Your task to perform on an android device: Search for the best rated headphones on amazon.com Image 0: 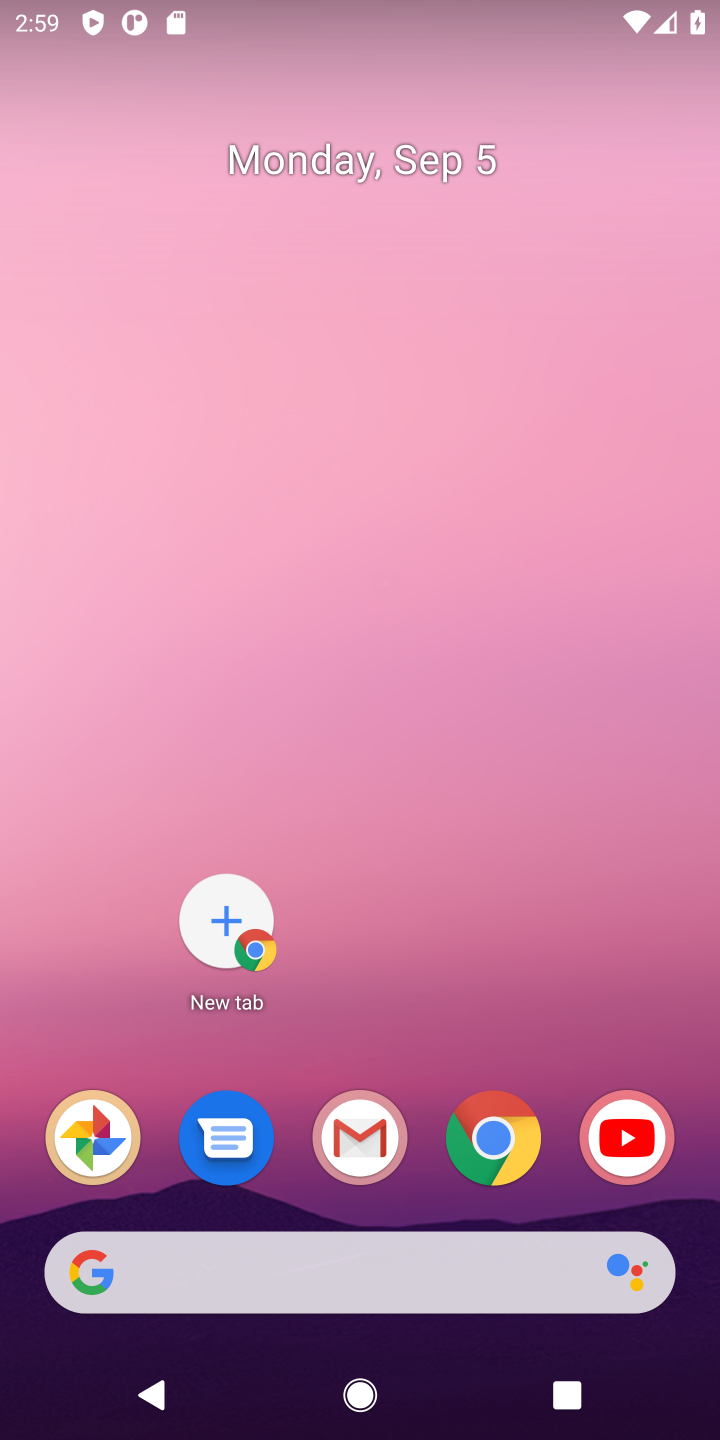
Step 0: click (493, 1170)
Your task to perform on an android device: Search for the best rated headphones on amazon.com Image 1: 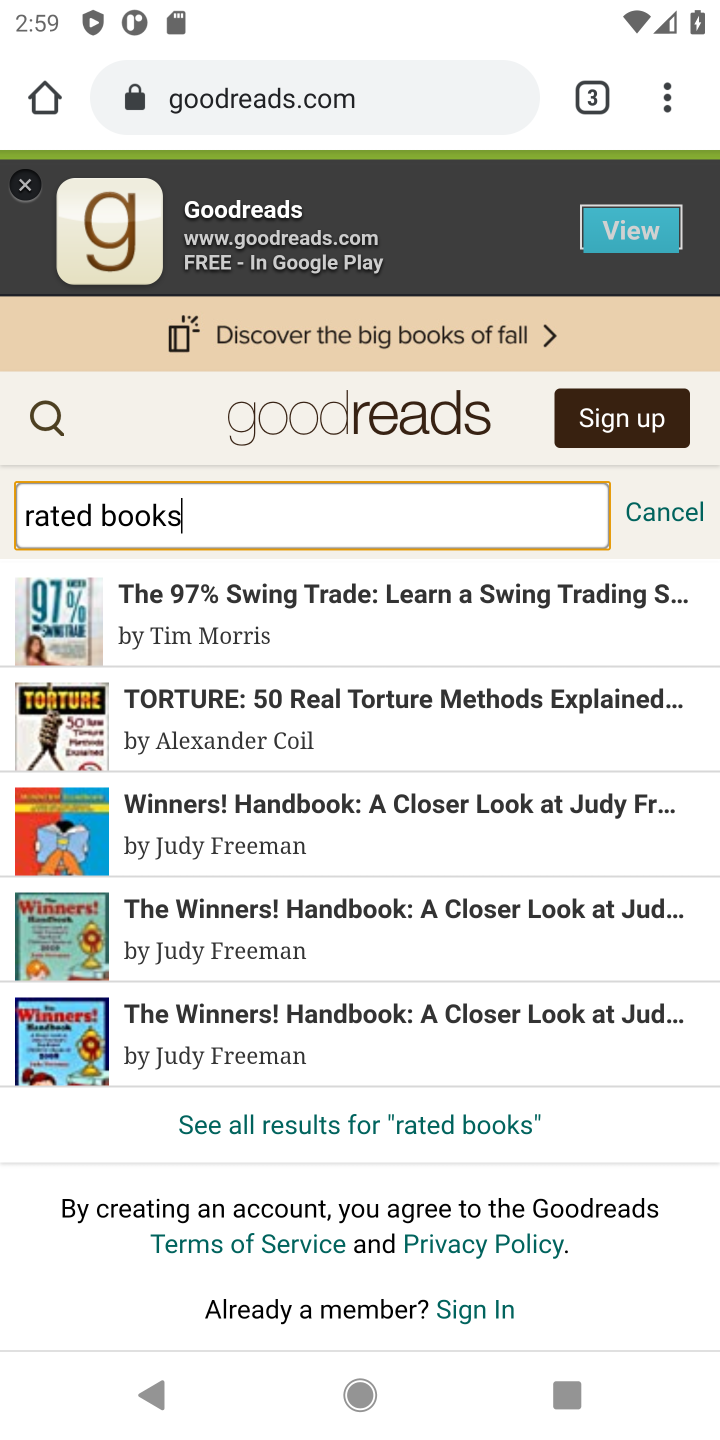
Step 1: click (279, 98)
Your task to perform on an android device: Search for the best rated headphones on amazon.com Image 2: 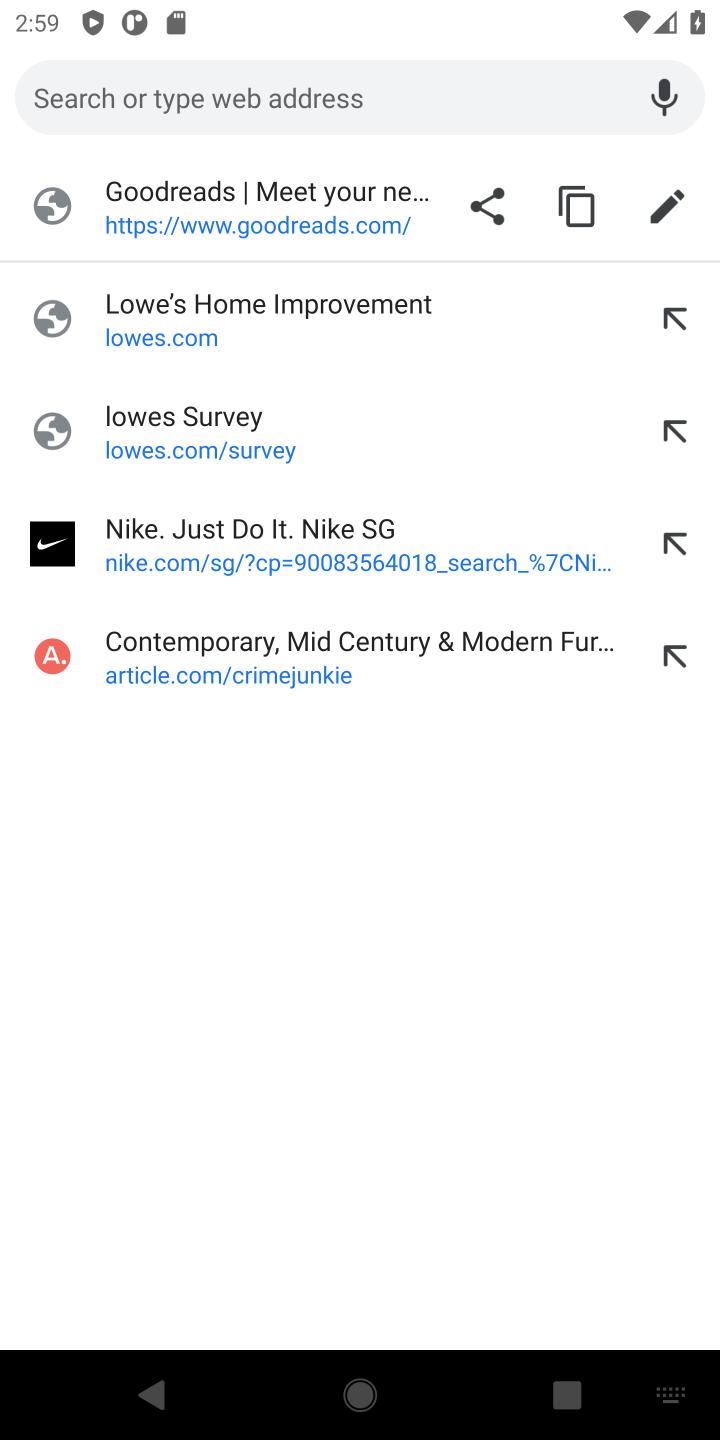
Step 2: type "amazon.com"
Your task to perform on an android device: Search for the best rated headphones on amazon.com Image 3: 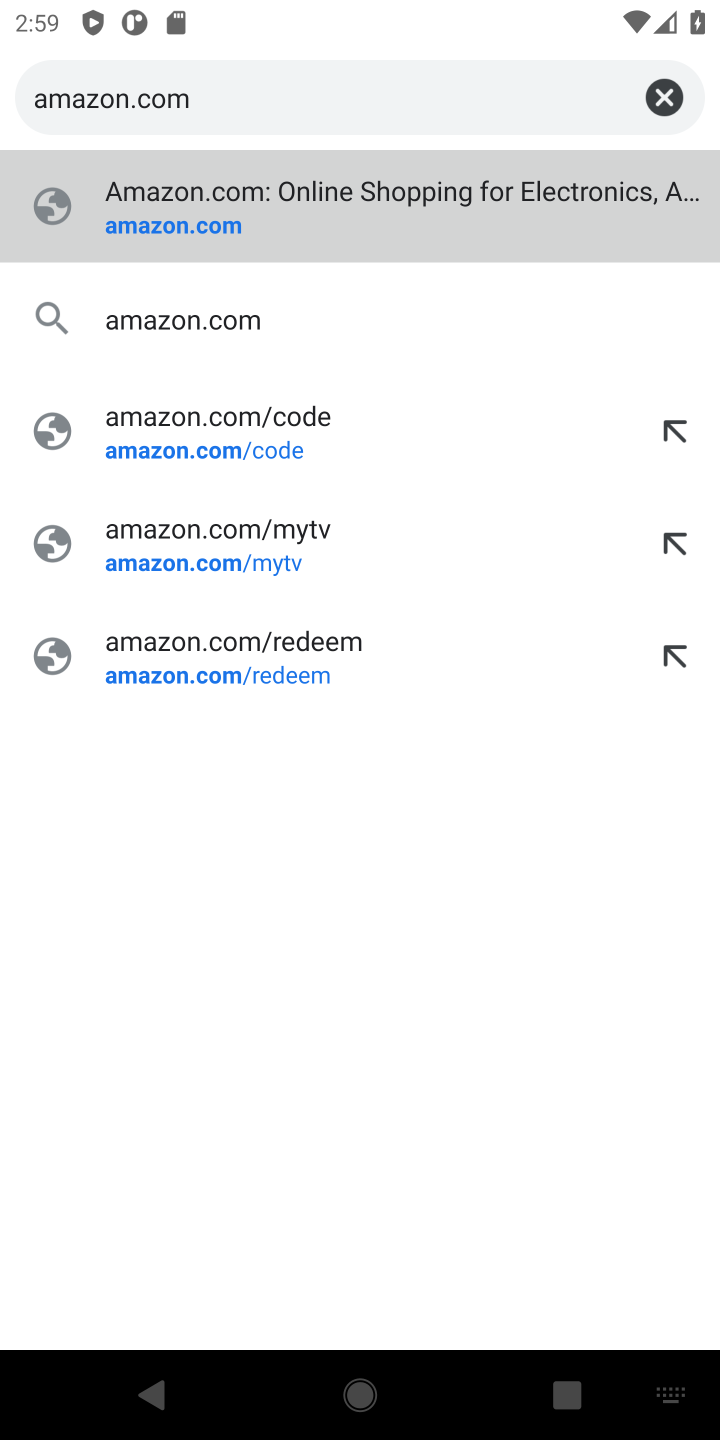
Step 3: type ""
Your task to perform on an android device: Search for the best rated headphones on amazon.com Image 4: 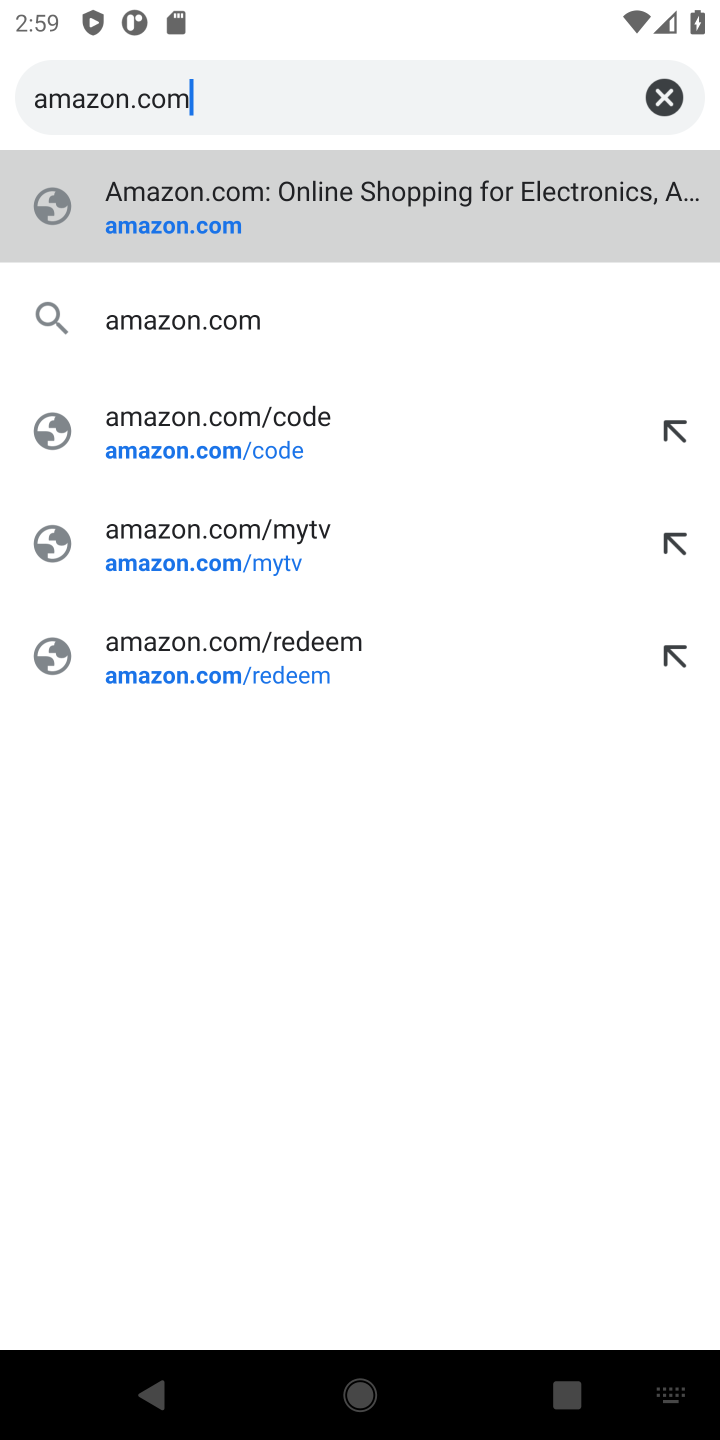
Step 4: click (270, 246)
Your task to perform on an android device: Search for the best rated headphones on amazon.com Image 5: 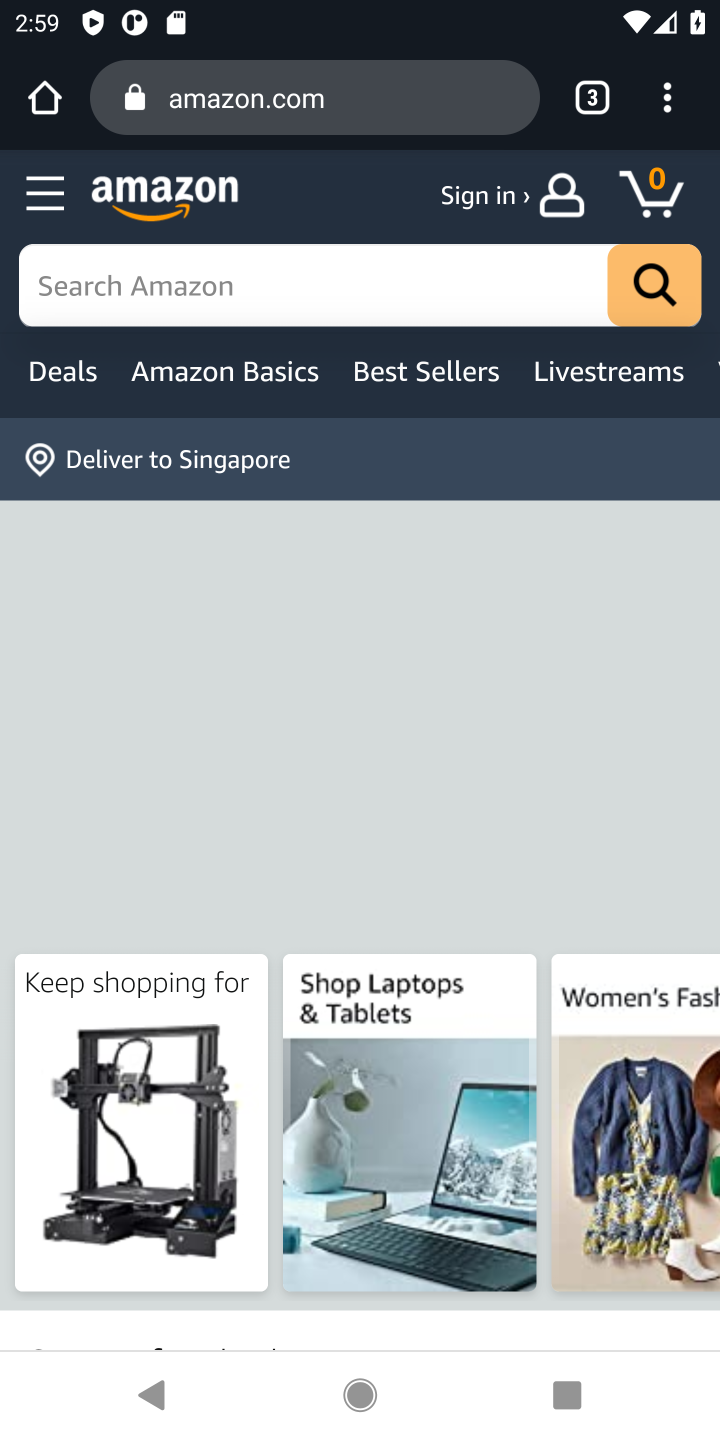
Step 5: click (283, 286)
Your task to perform on an android device: Search for the best rated headphones on amazon.com Image 6: 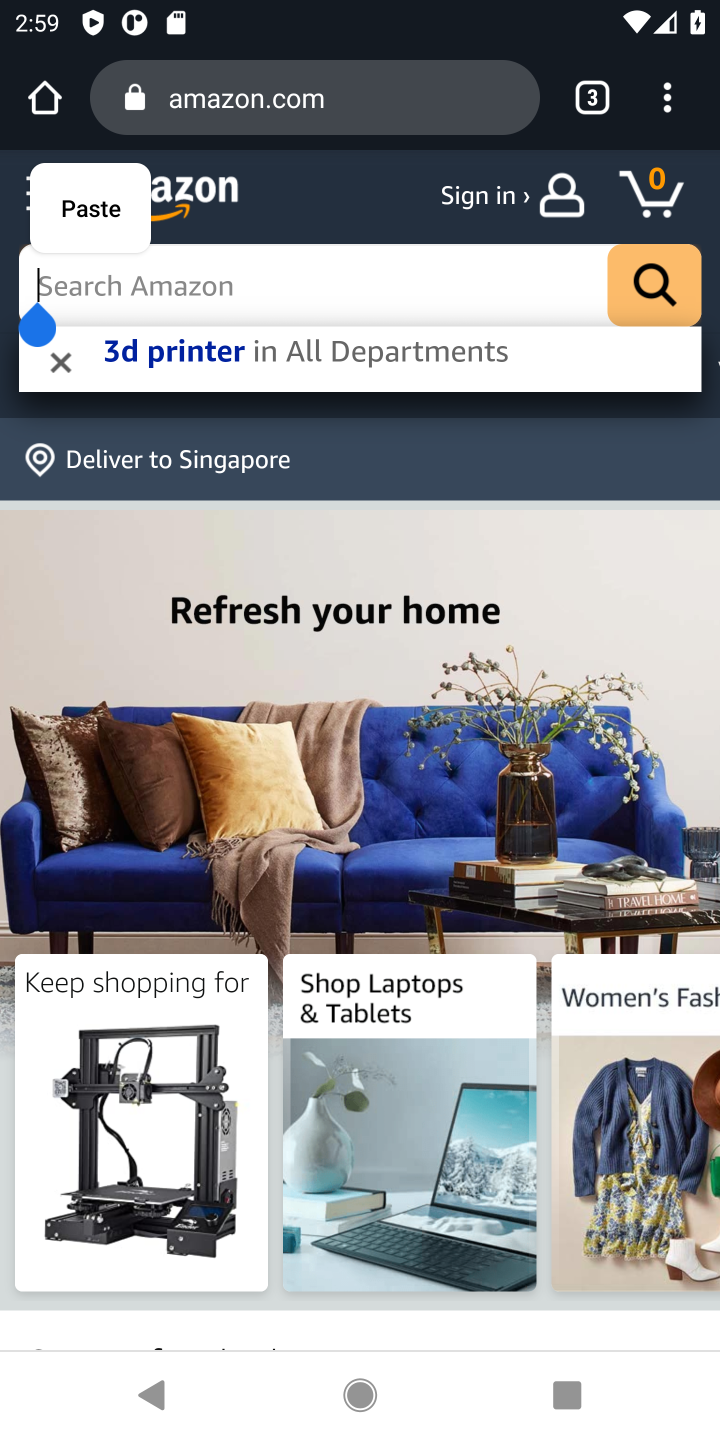
Step 6: type "headphones"
Your task to perform on an android device: Search for the best rated headphones on amazon.com Image 7: 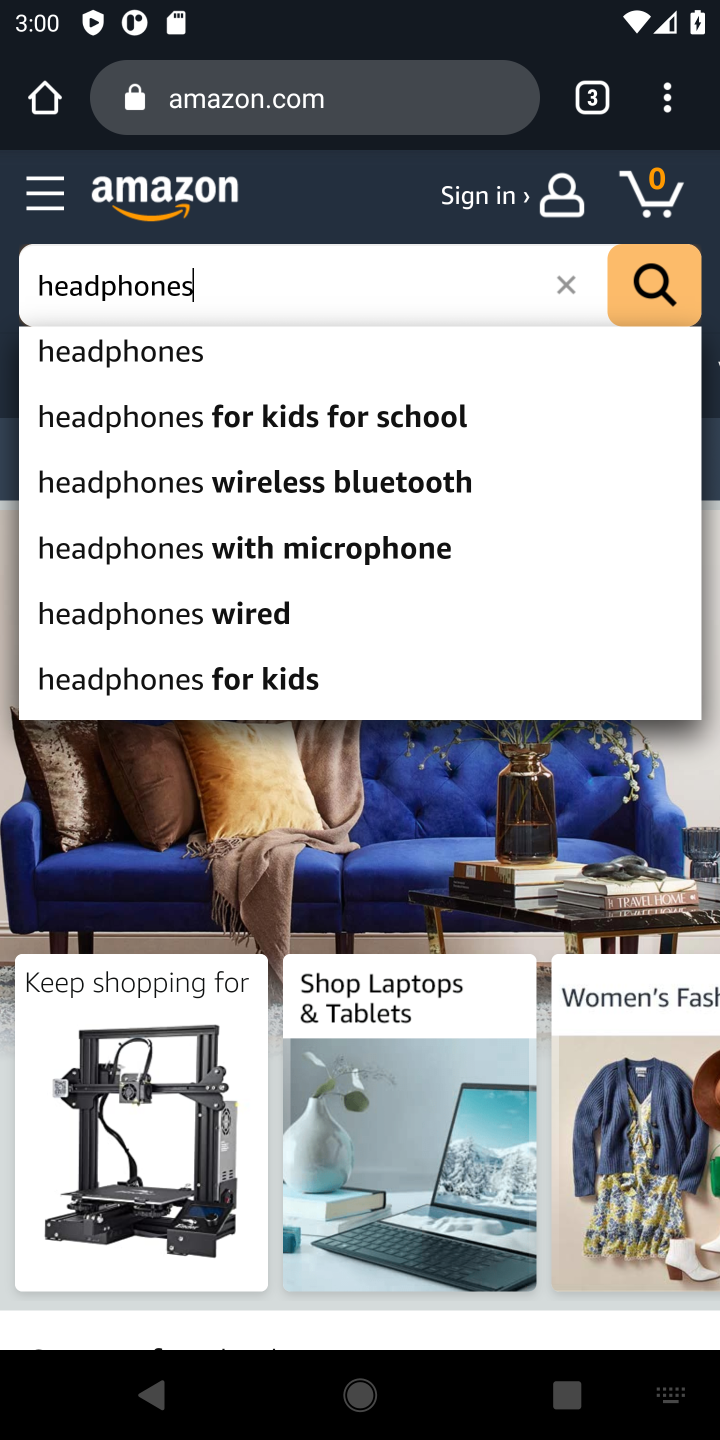
Step 7: click (78, 356)
Your task to perform on an android device: Search for the best rated headphones on amazon.com Image 8: 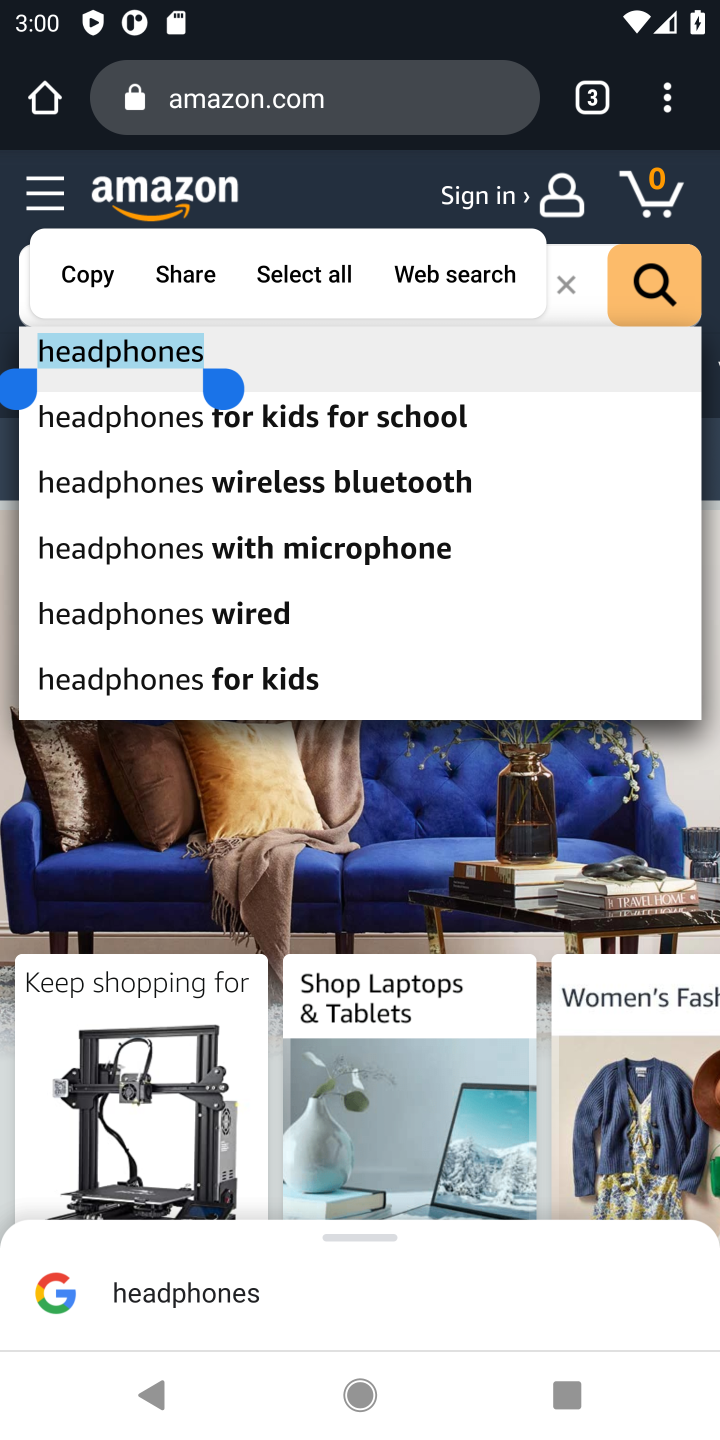
Step 8: click (82, 357)
Your task to perform on an android device: Search for the best rated headphones on amazon.com Image 9: 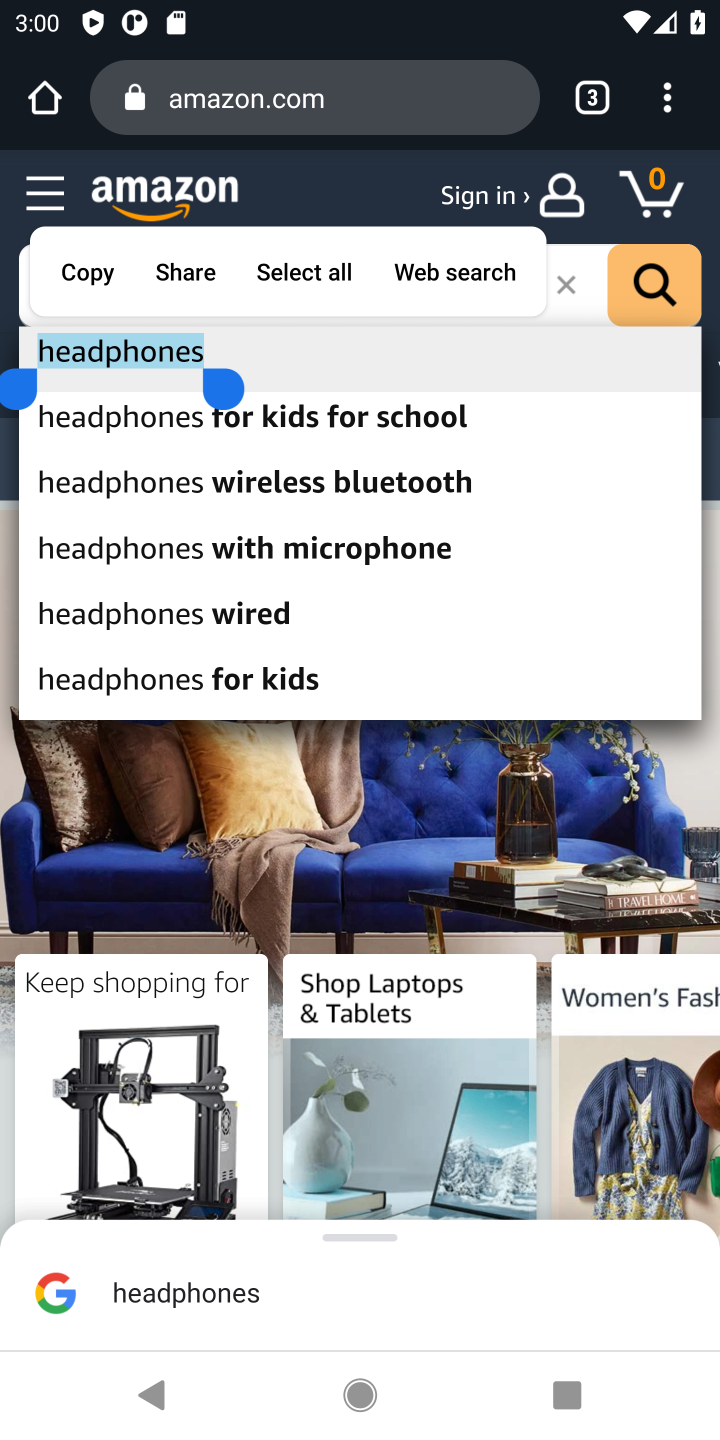
Step 9: click (150, 342)
Your task to perform on an android device: Search for the best rated headphones on amazon.com Image 10: 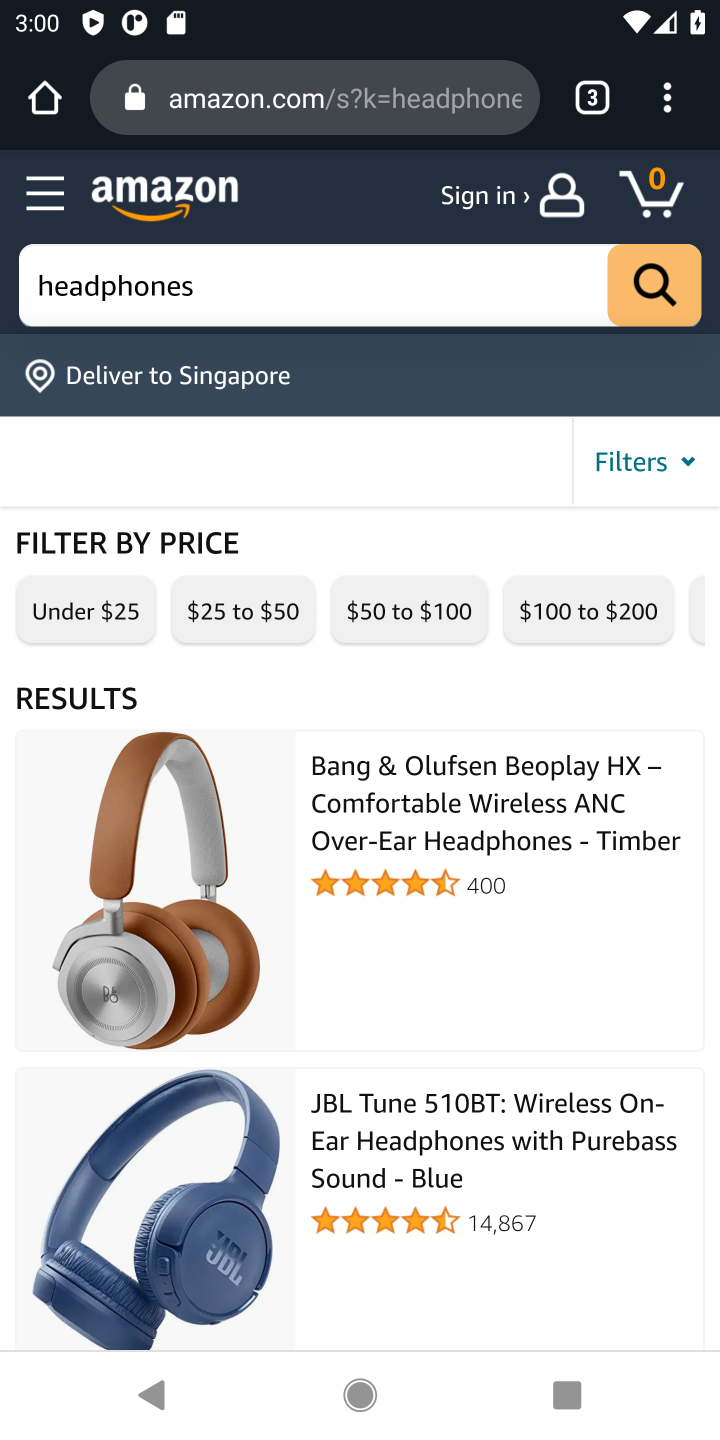
Step 10: click (621, 464)
Your task to perform on an android device: Search for the best rated headphones on amazon.com Image 11: 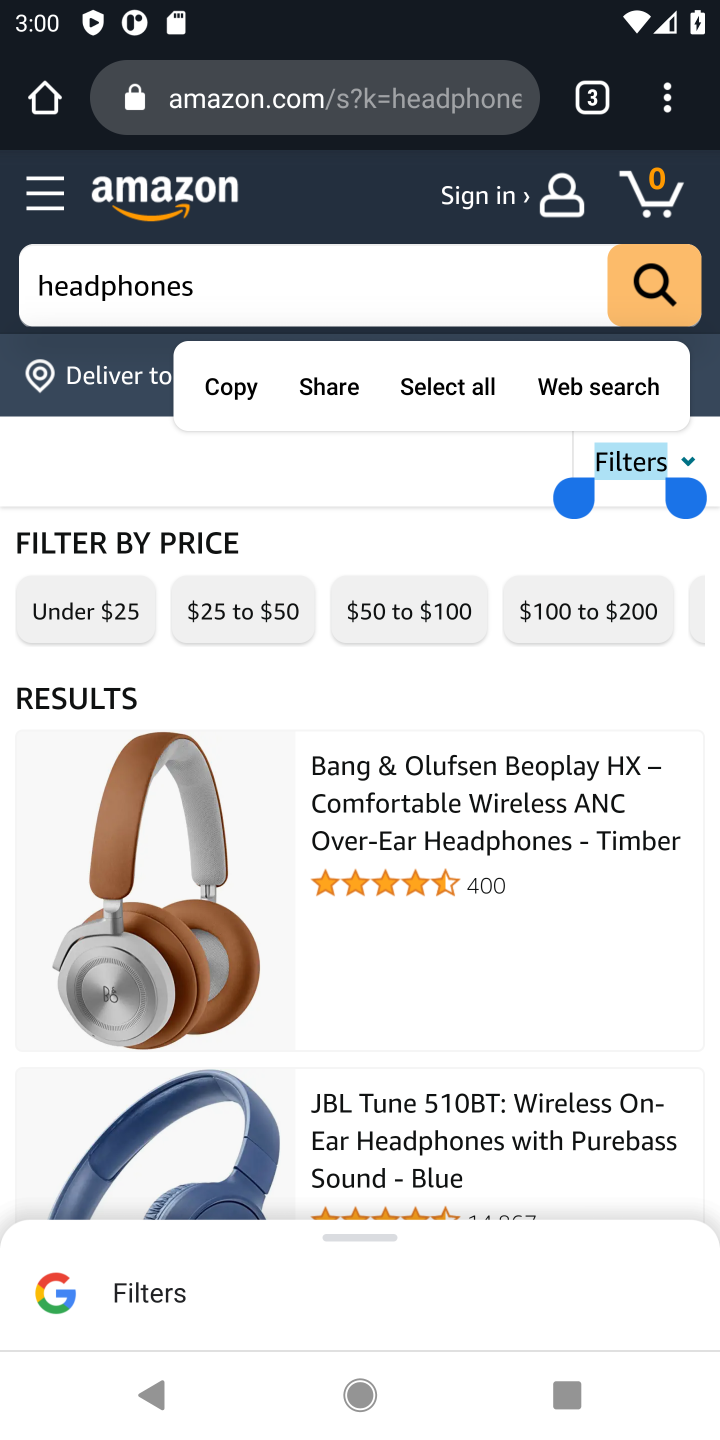
Step 11: click (594, 622)
Your task to perform on an android device: Search for the best rated headphones on amazon.com Image 12: 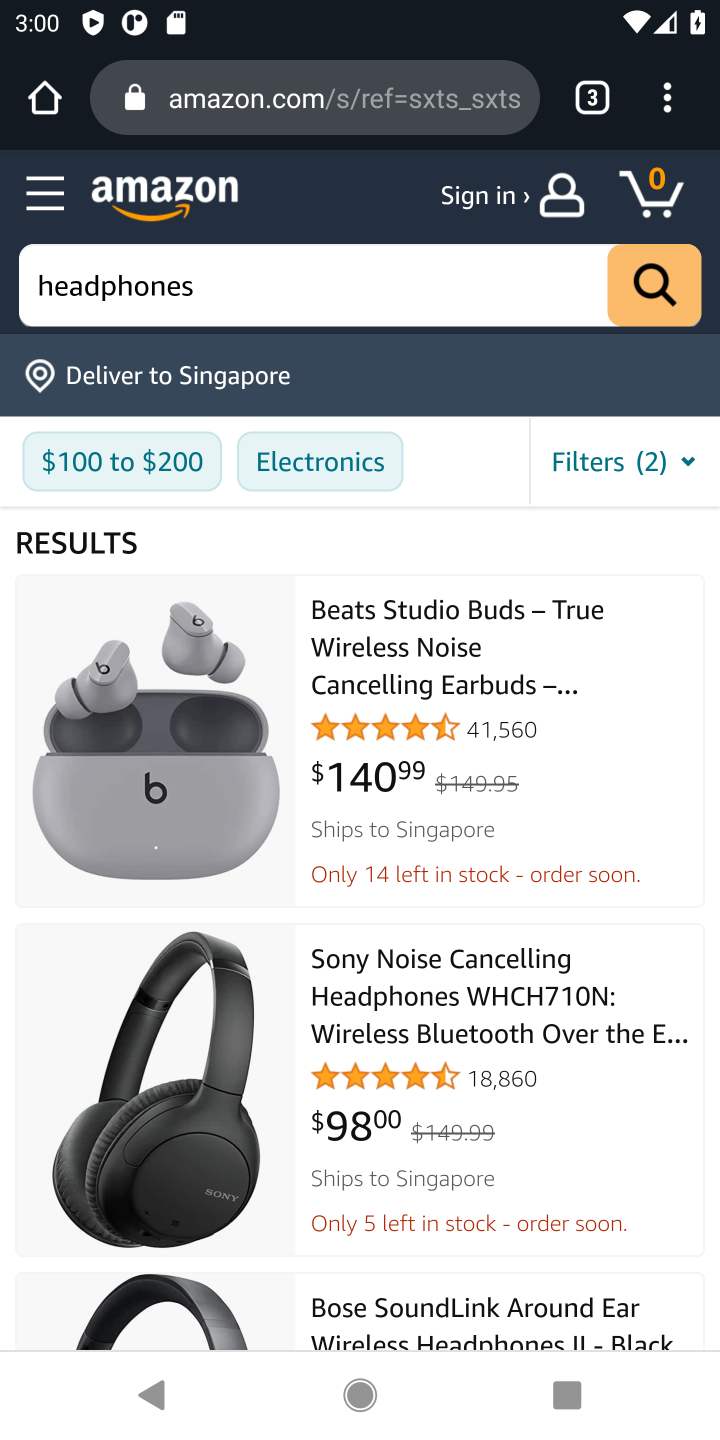
Step 12: drag from (571, 1006) to (499, 250)
Your task to perform on an android device: Search for the best rated headphones on amazon.com Image 13: 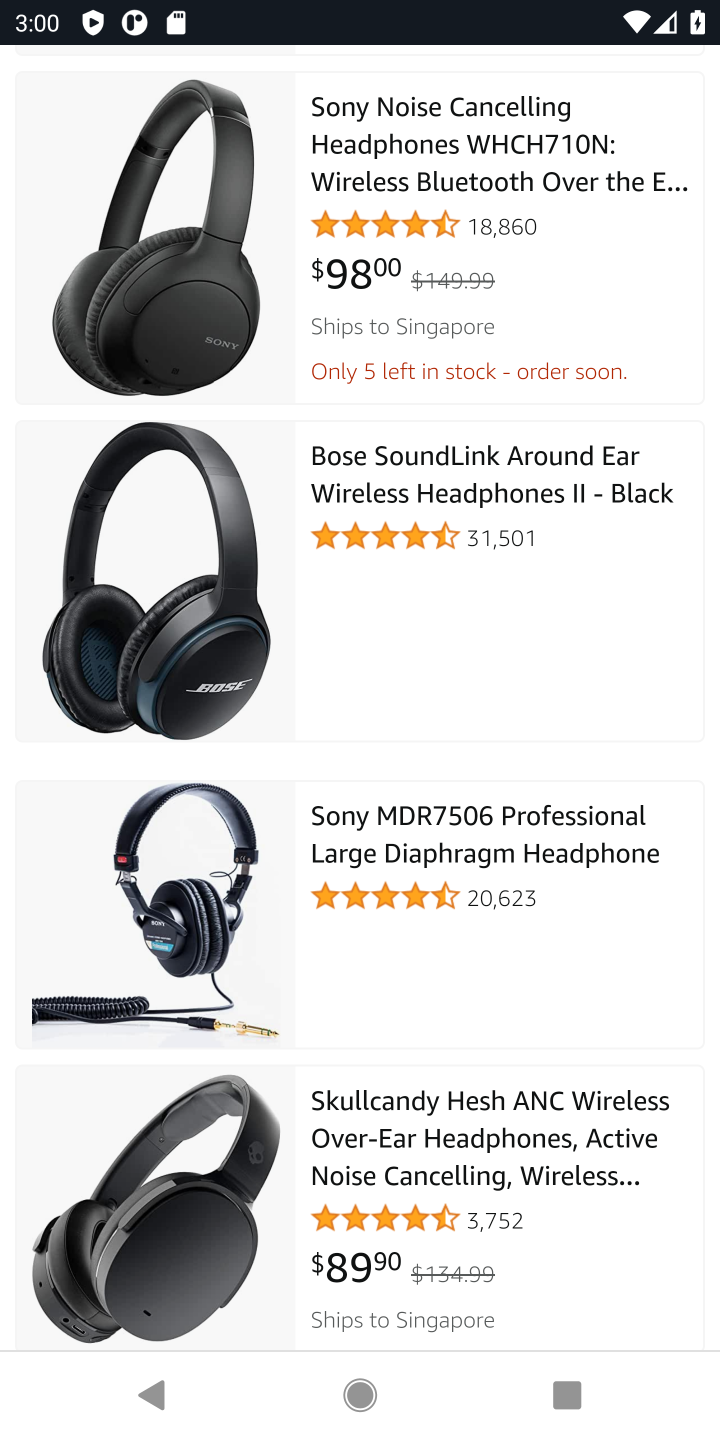
Step 13: click (647, 593)
Your task to perform on an android device: Search for the best rated headphones on amazon.com Image 14: 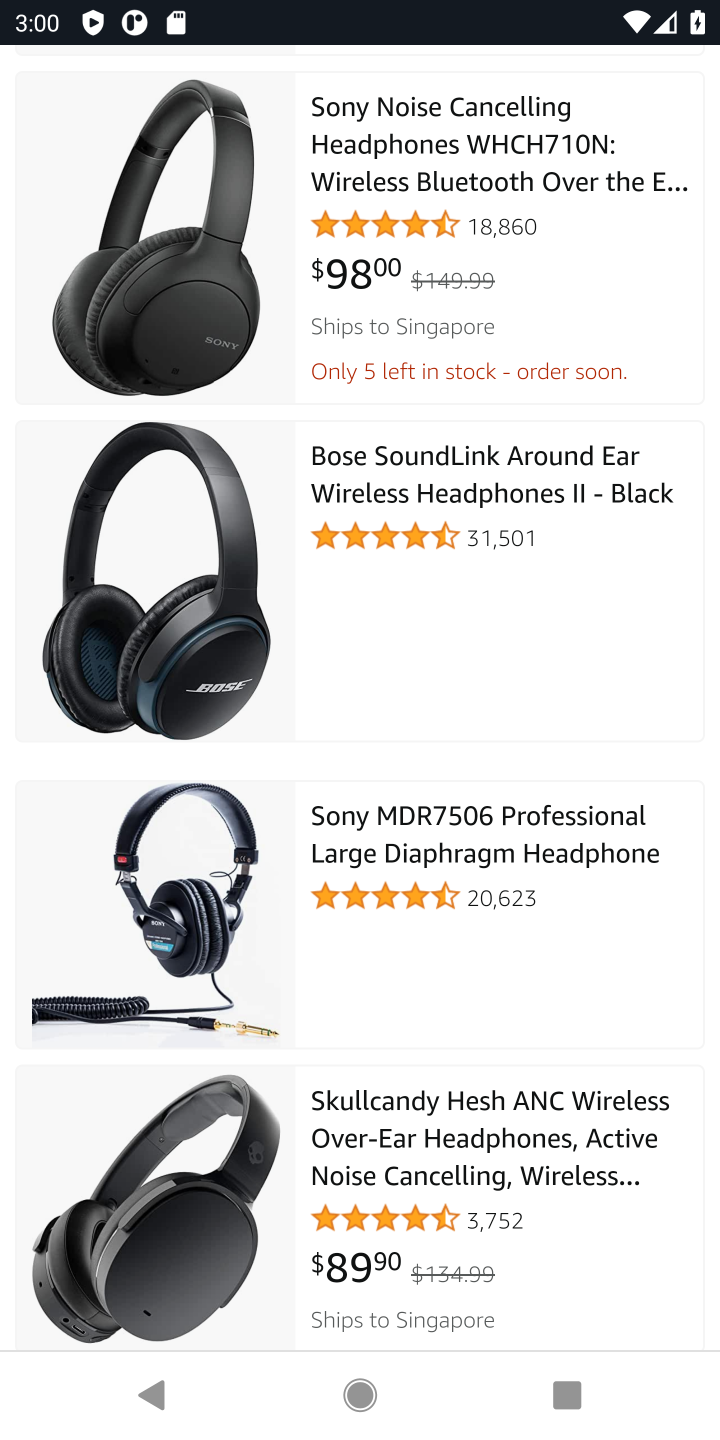
Step 14: click (466, 418)
Your task to perform on an android device: Search for the best rated headphones on amazon.com Image 15: 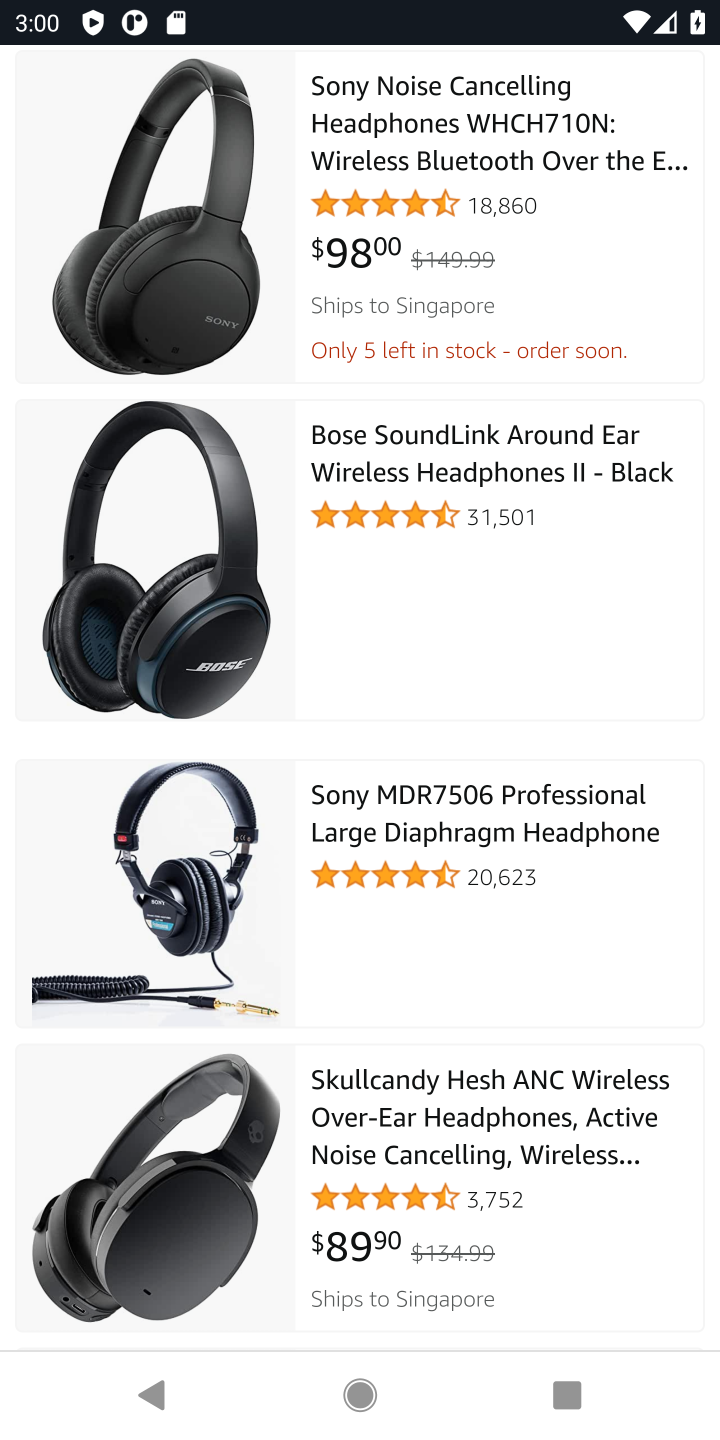
Step 15: task complete